Your task to perform on an android device: Go to CNN.com Image 0: 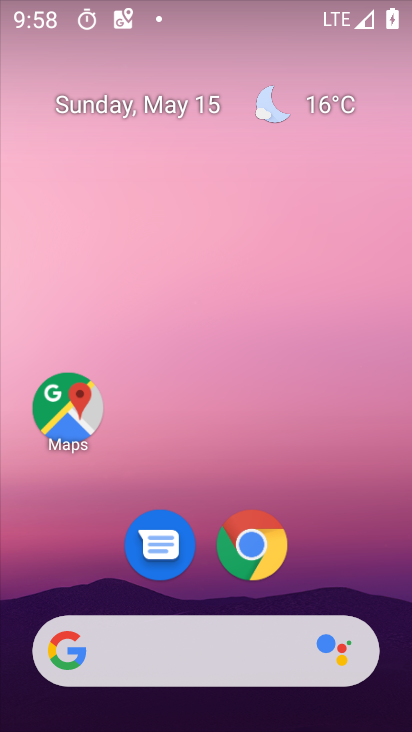
Step 0: click (252, 548)
Your task to perform on an android device: Go to CNN.com Image 1: 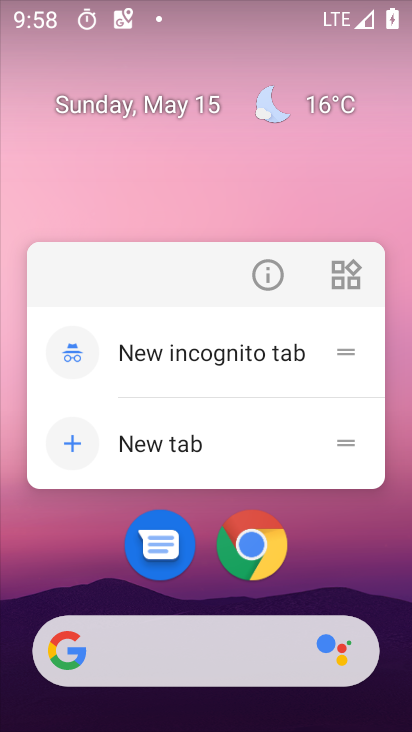
Step 1: click (252, 543)
Your task to perform on an android device: Go to CNN.com Image 2: 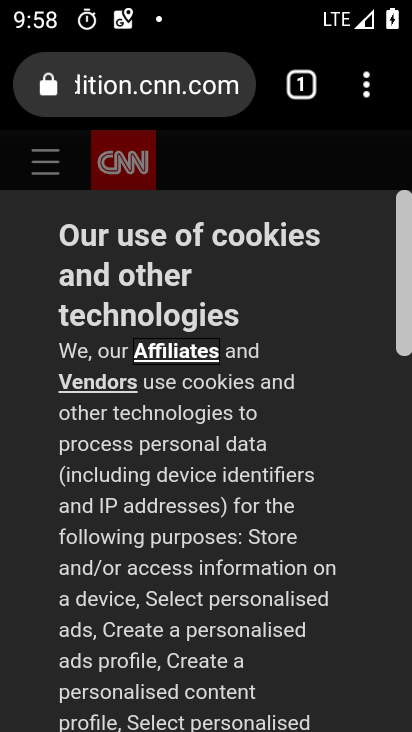
Step 2: click (237, 89)
Your task to perform on an android device: Go to CNN.com Image 3: 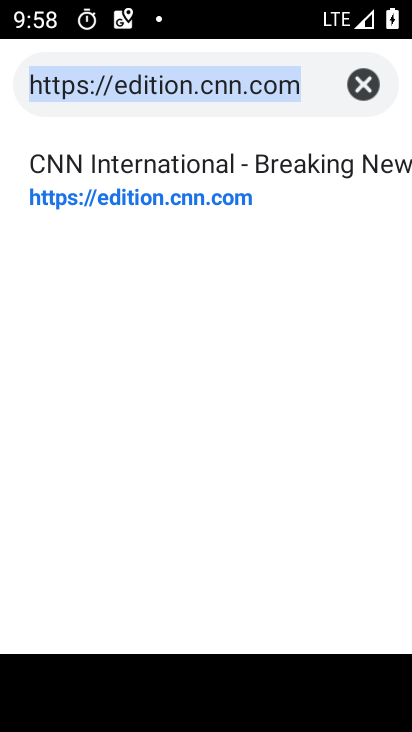
Step 3: click (200, 200)
Your task to perform on an android device: Go to CNN.com Image 4: 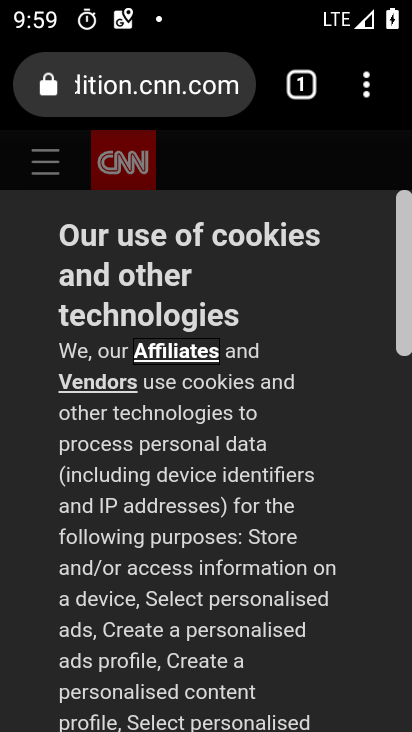
Step 4: task complete